Your task to perform on an android device: Is it going to rain today? Image 0: 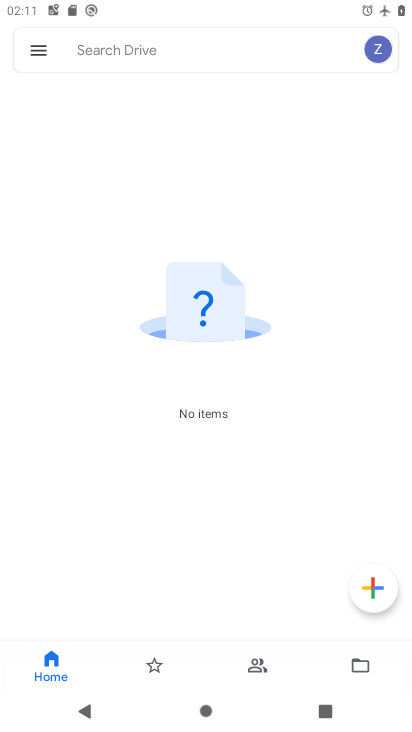
Step 0: press home button
Your task to perform on an android device: Is it going to rain today? Image 1: 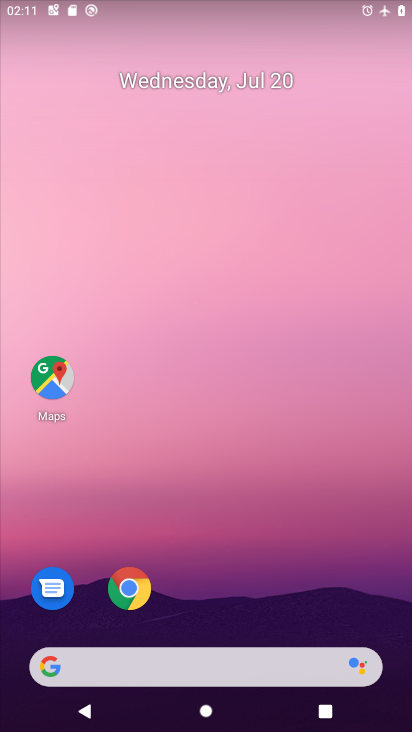
Step 1: drag from (204, 610) to (237, 349)
Your task to perform on an android device: Is it going to rain today? Image 2: 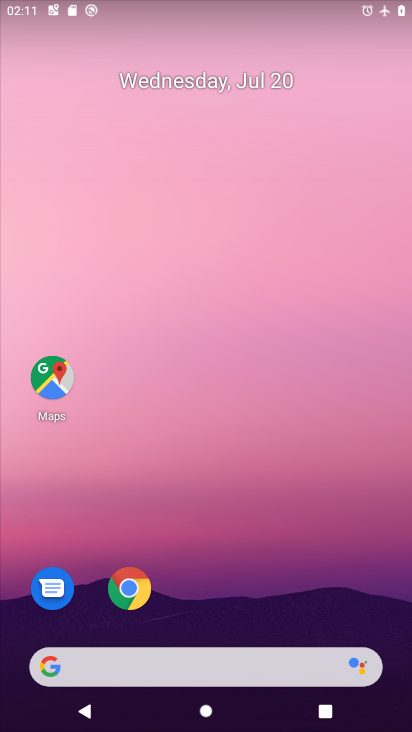
Step 2: drag from (256, 611) to (269, 481)
Your task to perform on an android device: Is it going to rain today? Image 3: 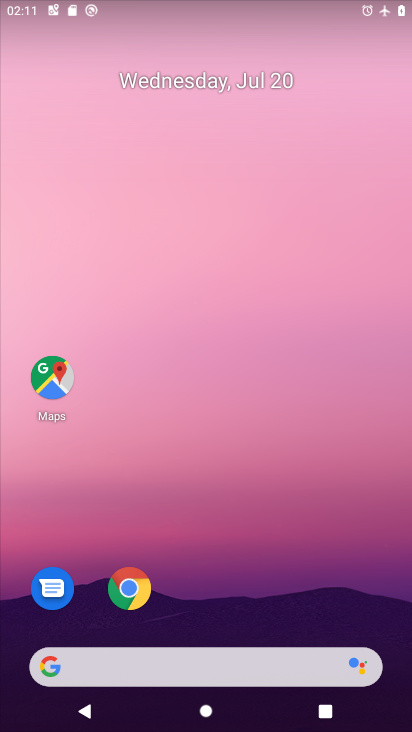
Step 3: drag from (236, 625) to (245, 322)
Your task to perform on an android device: Is it going to rain today? Image 4: 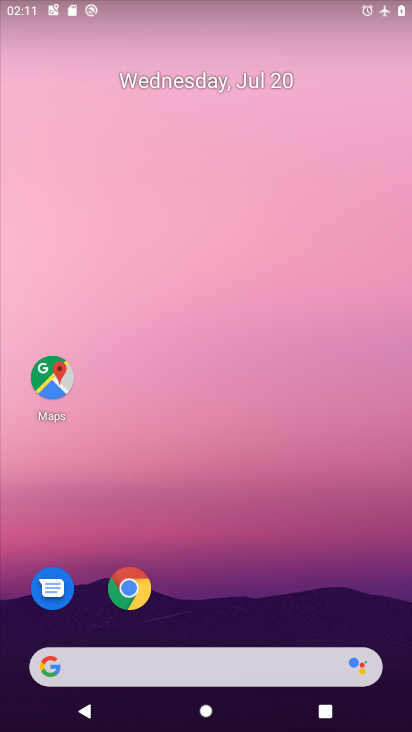
Step 4: drag from (208, 636) to (283, 240)
Your task to perform on an android device: Is it going to rain today? Image 5: 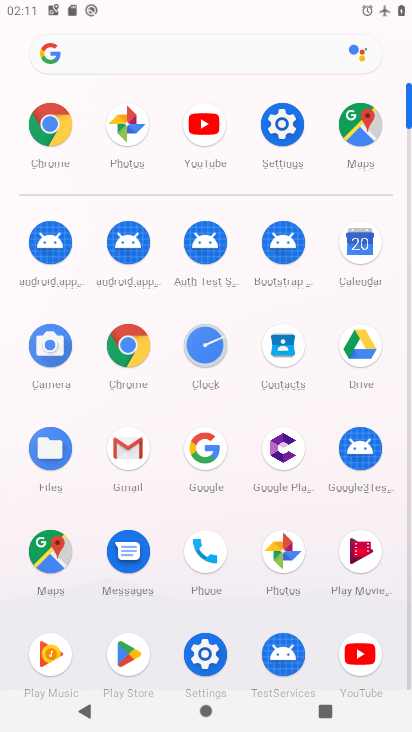
Step 5: click (125, 350)
Your task to perform on an android device: Is it going to rain today? Image 6: 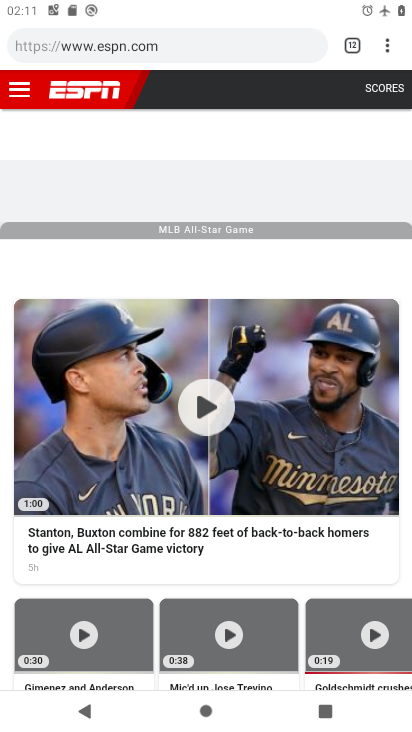
Step 6: click (394, 39)
Your task to perform on an android device: Is it going to rain today? Image 7: 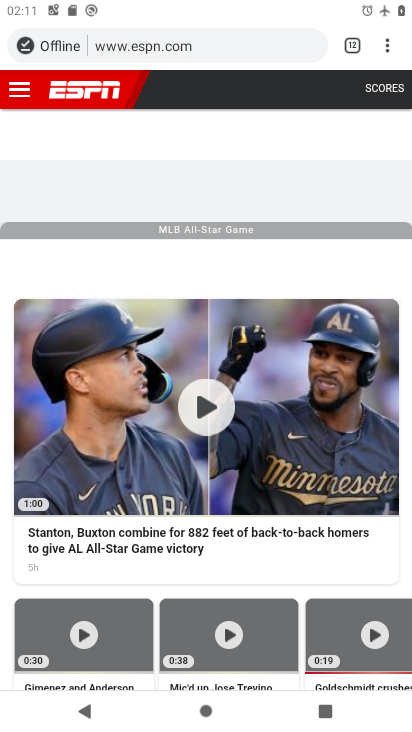
Step 7: click (386, 48)
Your task to perform on an android device: Is it going to rain today? Image 8: 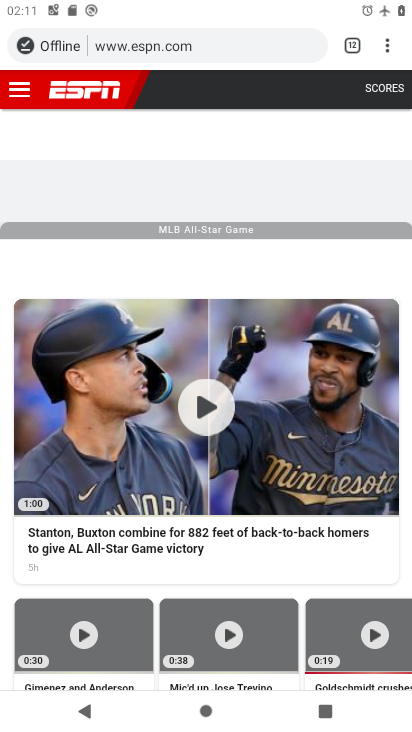
Step 8: click (393, 48)
Your task to perform on an android device: Is it going to rain today? Image 9: 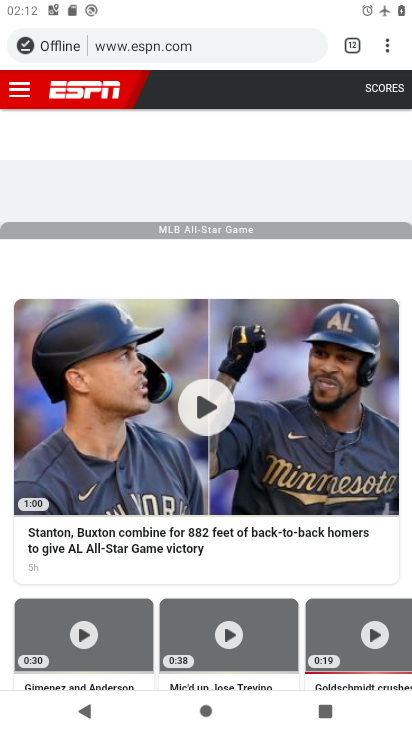
Step 9: click (393, 36)
Your task to perform on an android device: Is it going to rain today? Image 10: 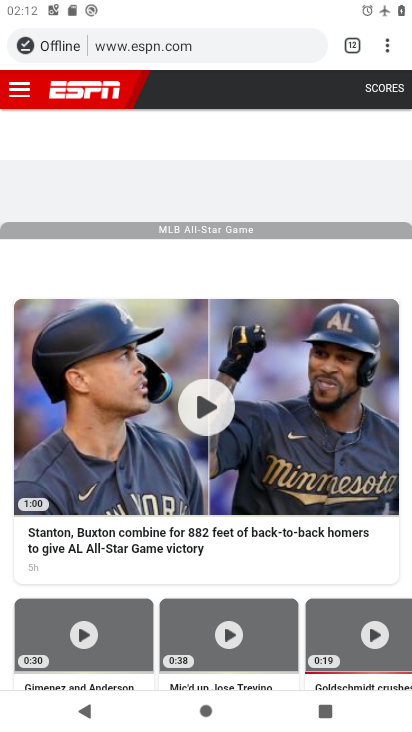
Step 10: click (388, 36)
Your task to perform on an android device: Is it going to rain today? Image 11: 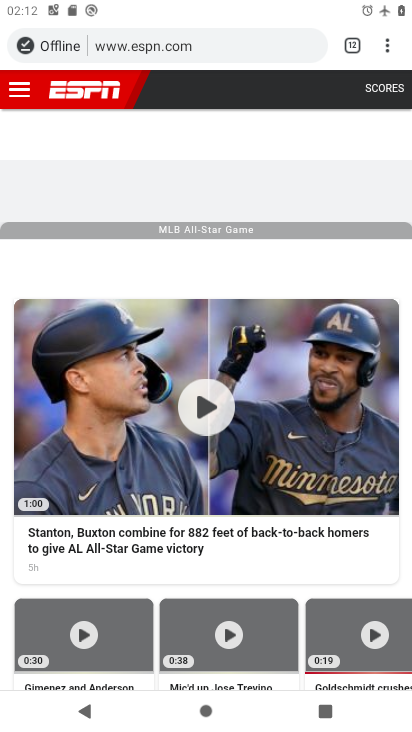
Step 11: click (389, 40)
Your task to perform on an android device: Is it going to rain today? Image 12: 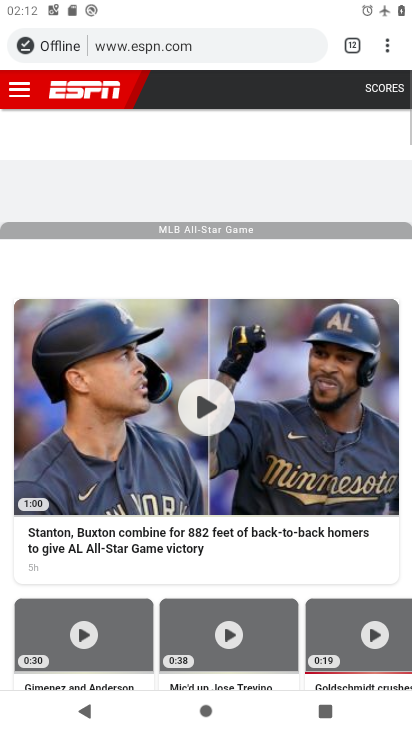
Step 12: click (387, 40)
Your task to perform on an android device: Is it going to rain today? Image 13: 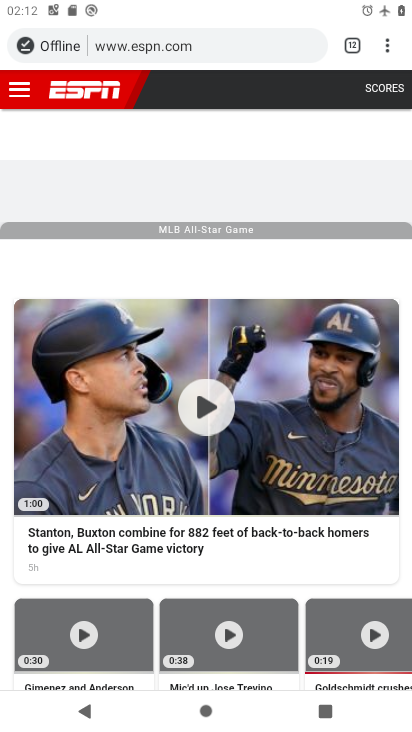
Step 13: click (387, 40)
Your task to perform on an android device: Is it going to rain today? Image 14: 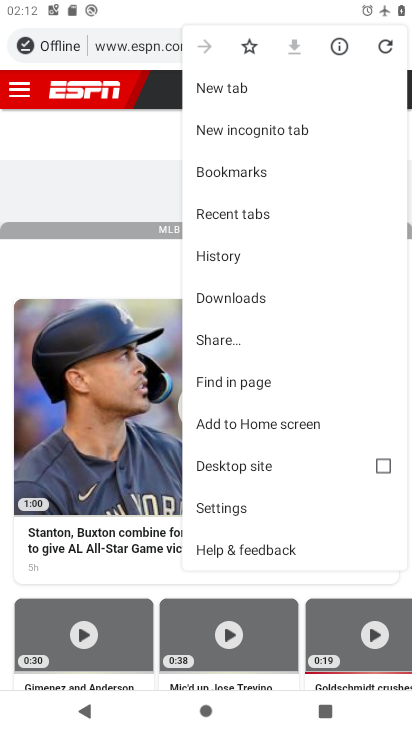
Step 14: click (232, 90)
Your task to perform on an android device: Is it going to rain today? Image 15: 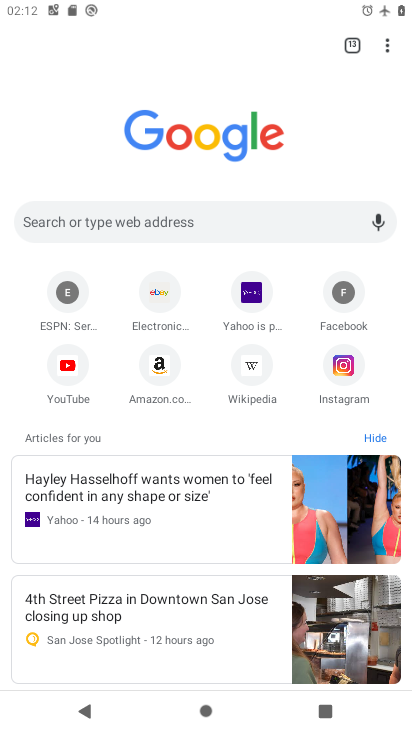
Step 15: click (247, 224)
Your task to perform on an android device: Is it going to rain today? Image 16: 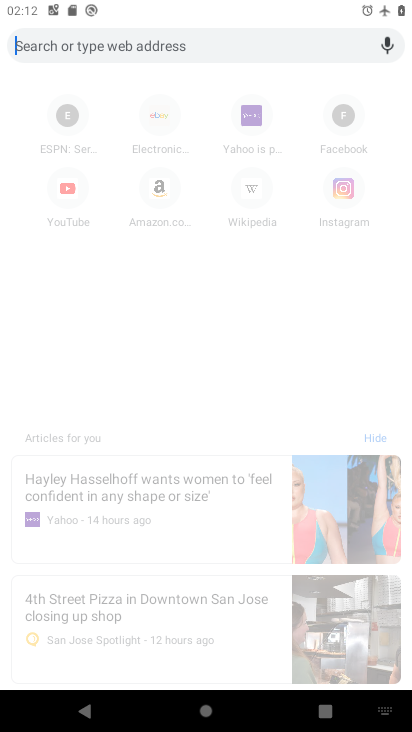
Step 16: type "Is it going to rain today "
Your task to perform on an android device: Is it going to rain today? Image 17: 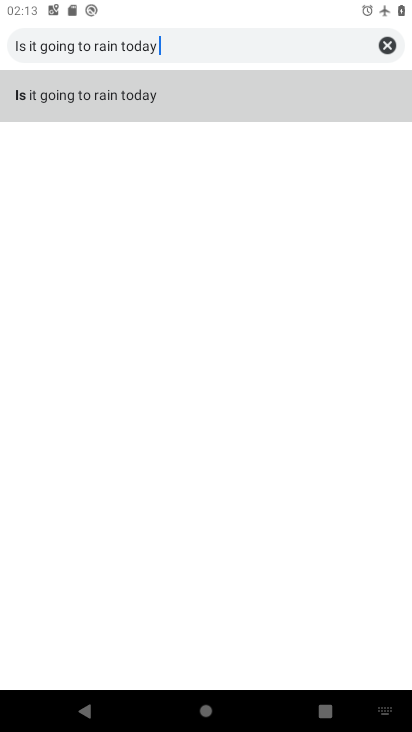
Step 17: click (205, 102)
Your task to perform on an android device: Is it going to rain today? Image 18: 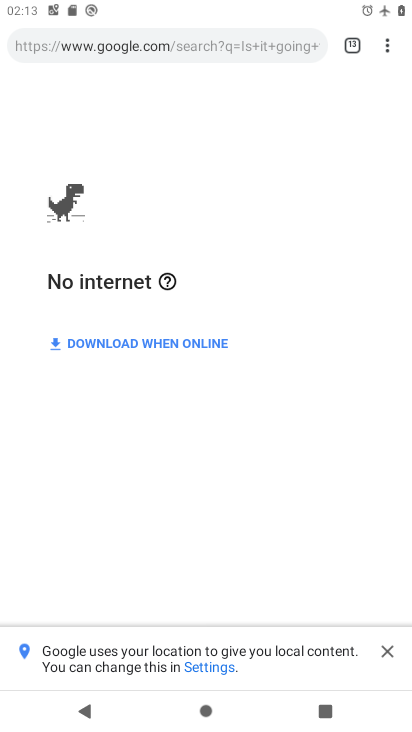
Step 18: task complete